Your task to perform on an android device: Open the map Image 0: 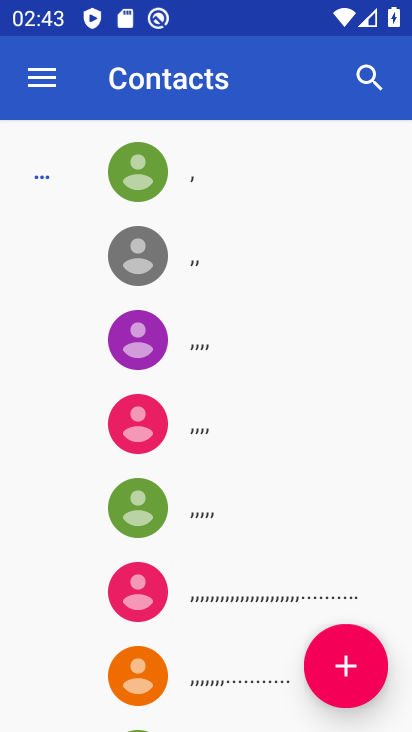
Step 0: press home button
Your task to perform on an android device: Open the map Image 1: 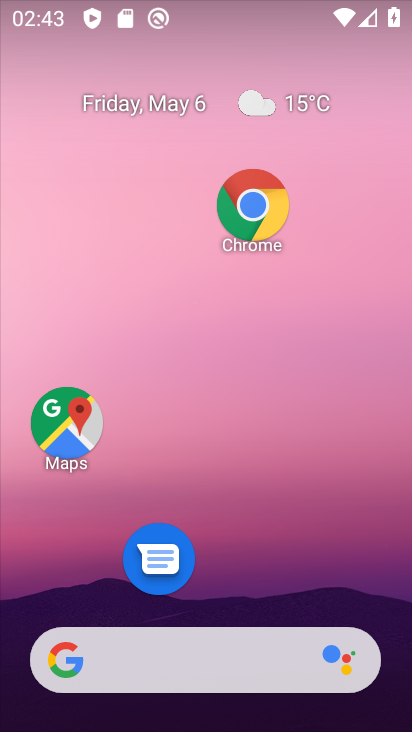
Step 1: click (49, 426)
Your task to perform on an android device: Open the map Image 2: 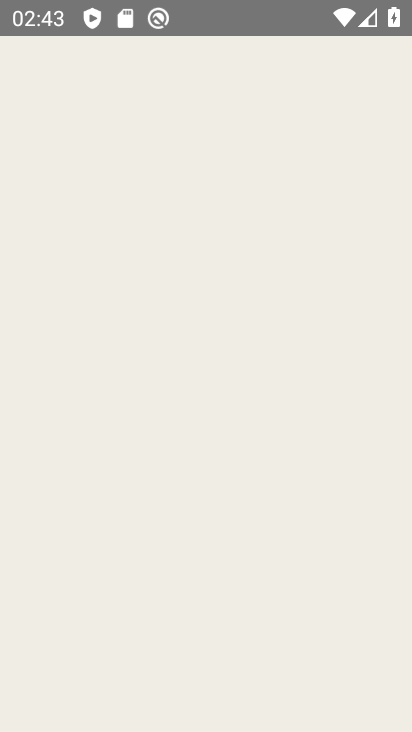
Step 2: task complete